Your task to perform on an android device: all mails in gmail Image 0: 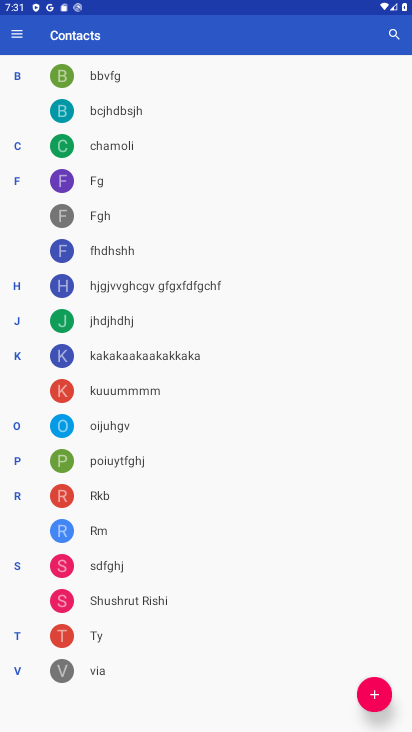
Step 0: press home button
Your task to perform on an android device: all mails in gmail Image 1: 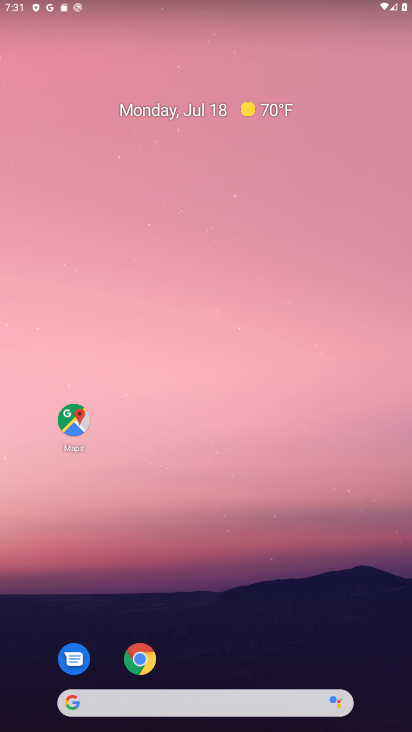
Step 1: drag from (224, 702) to (284, 104)
Your task to perform on an android device: all mails in gmail Image 2: 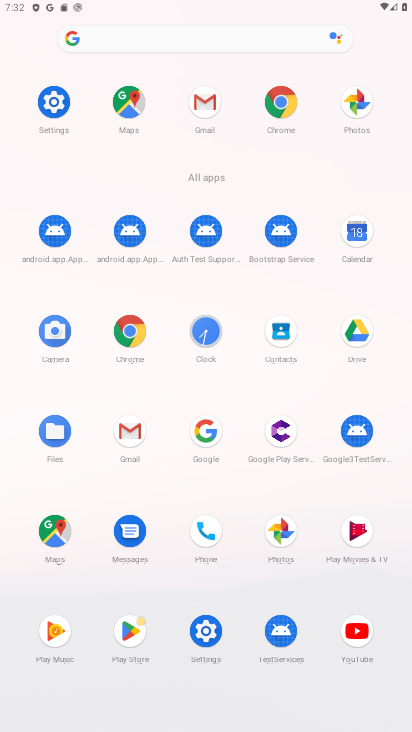
Step 2: click (208, 102)
Your task to perform on an android device: all mails in gmail Image 3: 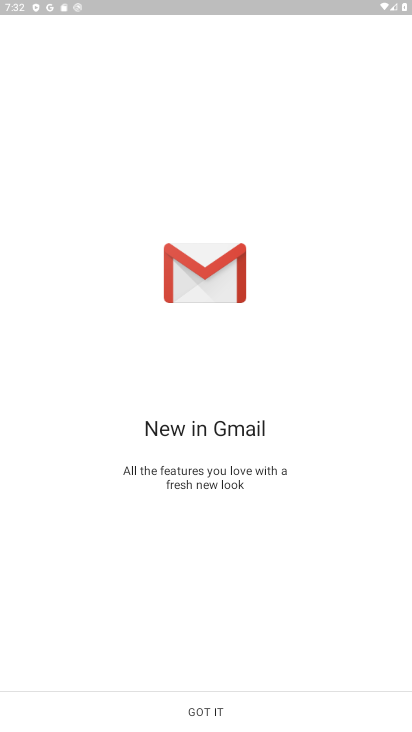
Step 3: click (203, 714)
Your task to perform on an android device: all mails in gmail Image 4: 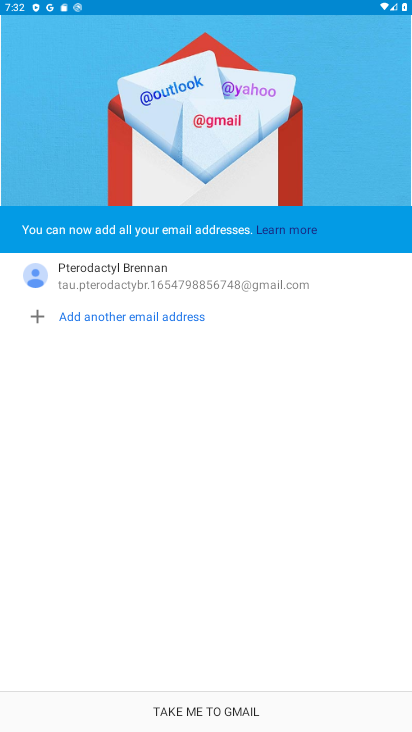
Step 4: click (203, 714)
Your task to perform on an android device: all mails in gmail Image 5: 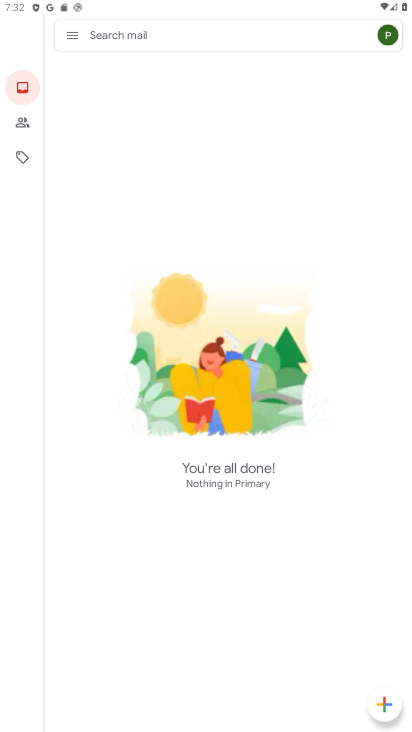
Step 5: click (74, 38)
Your task to perform on an android device: all mails in gmail Image 6: 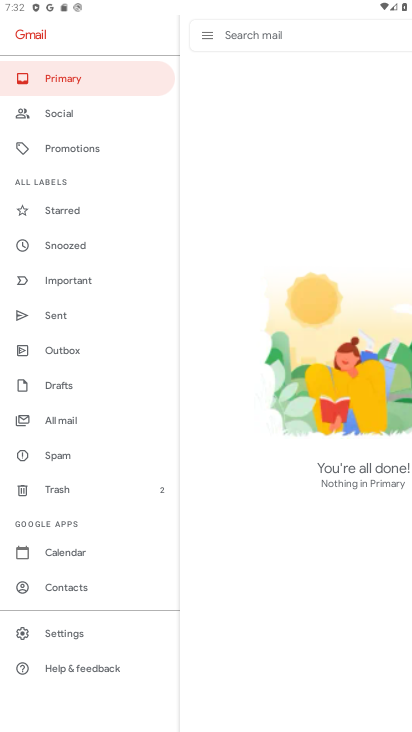
Step 6: click (79, 418)
Your task to perform on an android device: all mails in gmail Image 7: 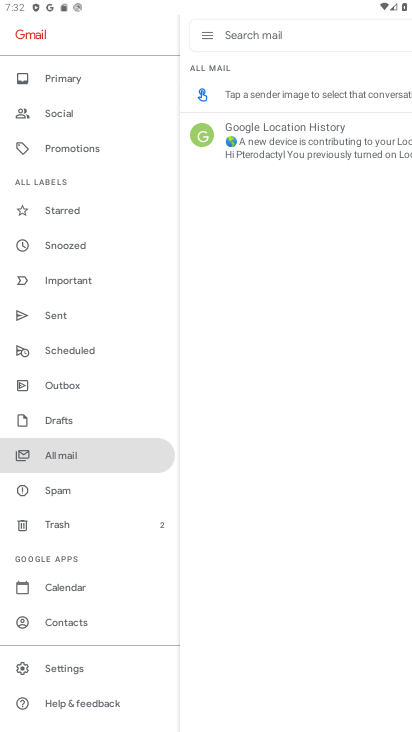
Step 7: task complete